Your task to perform on an android device: empty trash in google photos Image 0: 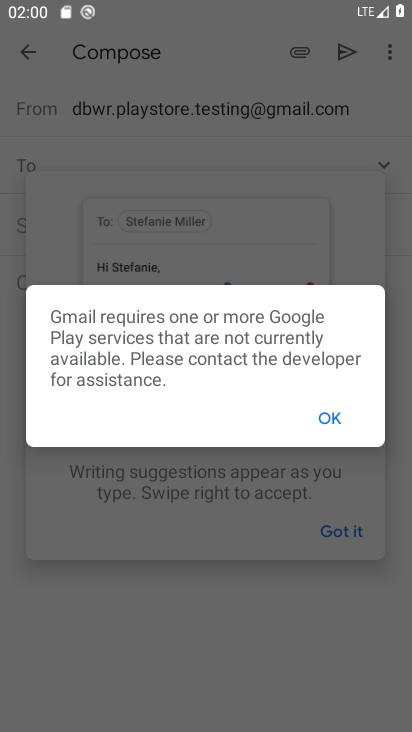
Step 0: press home button
Your task to perform on an android device: empty trash in google photos Image 1: 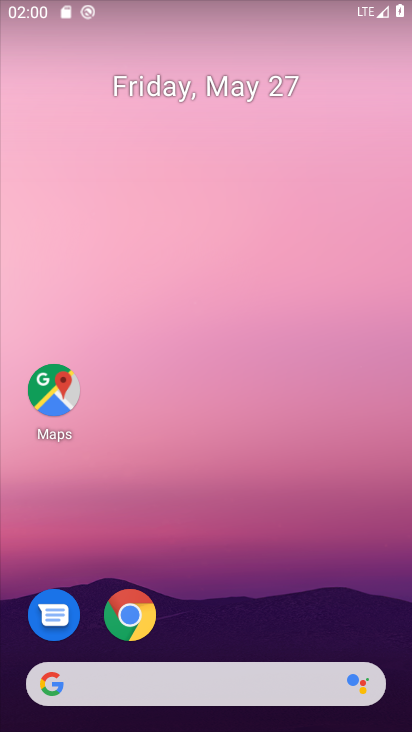
Step 1: drag from (352, 624) to (359, 323)
Your task to perform on an android device: empty trash in google photos Image 2: 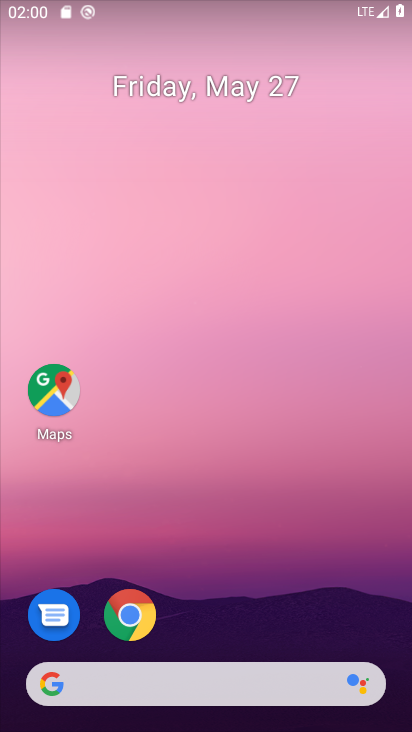
Step 2: drag from (361, 600) to (366, 283)
Your task to perform on an android device: empty trash in google photos Image 3: 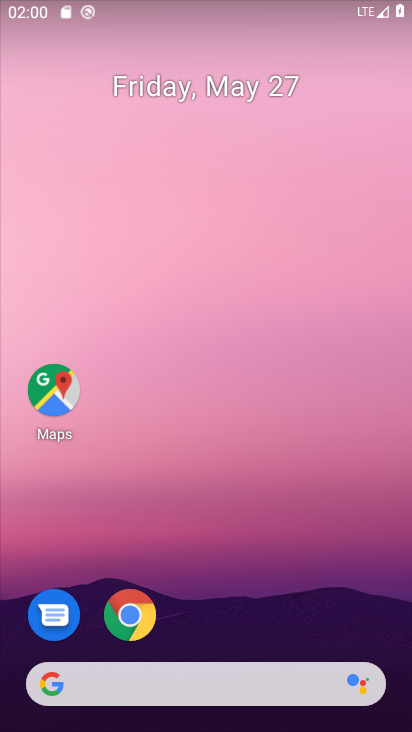
Step 3: drag from (349, 624) to (355, 226)
Your task to perform on an android device: empty trash in google photos Image 4: 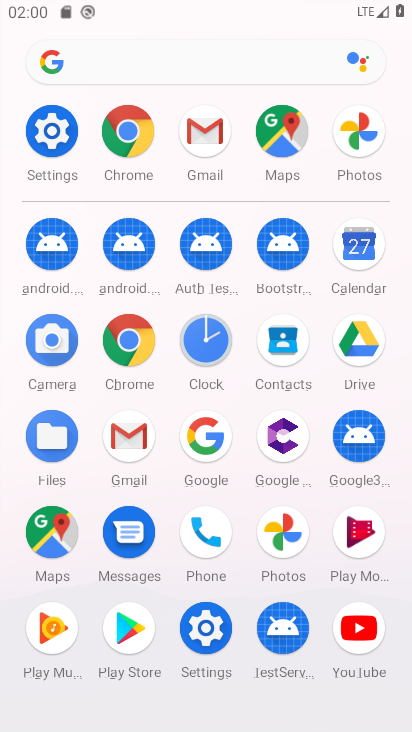
Step 4: click (273, 540)
Your task to perform on an android device: empty trash in google photos Image 5: 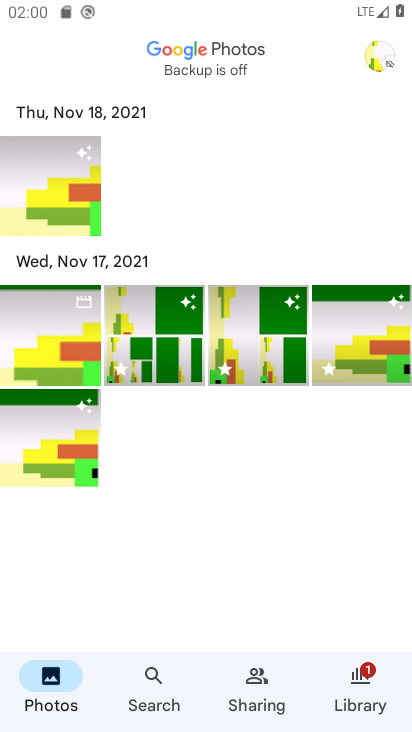
Step 5: click (351, 684)
Your task to perform on an android device: empty trash in google photos Image 6: 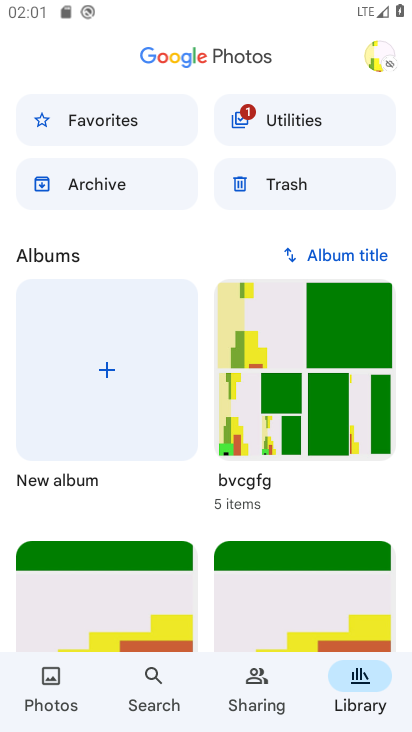
Step 6: click (306, 182)
Your task to perform on an android device: empty trash in google photos Image 7: 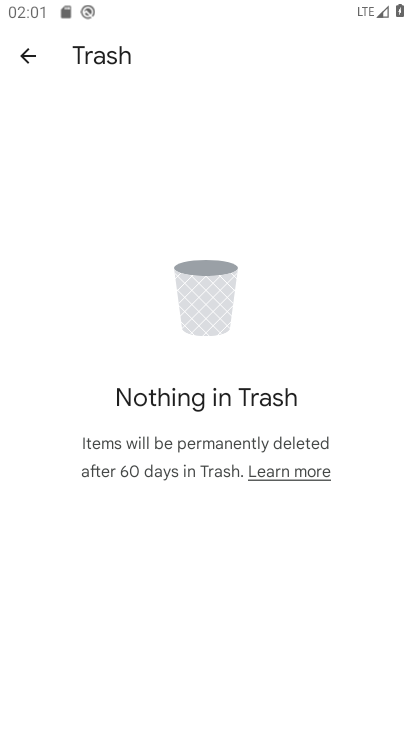
Step 7: task complete